Your task to perform on an android device: Go to Android settings Image 0: 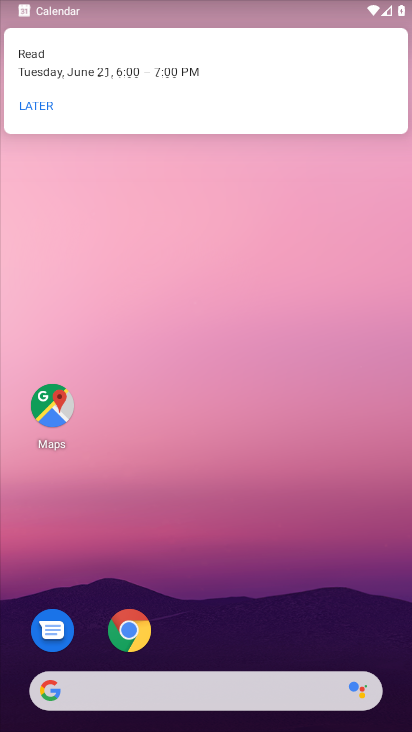
Step 0: press home button
Your task to perform on an android device: Go to Android settings Image 1: 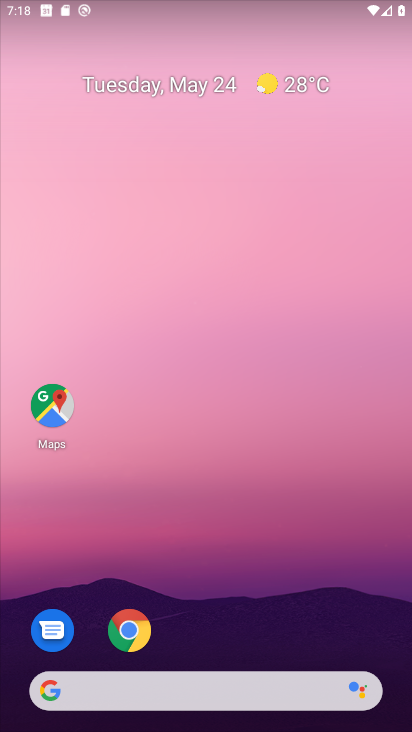
Step 1: drag from (305, 692) to (138, 150)
Your task to perform on an android device: Go to Android settings Image 2: 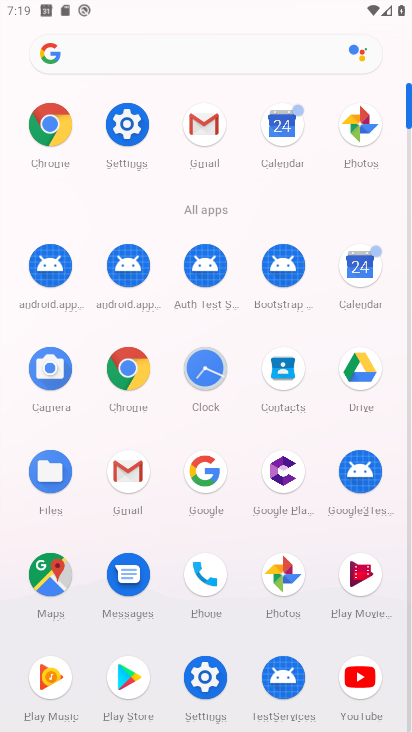
Step 2: click (148, 116)
Your task to perform on an android device: Go to Android settings Image 3: 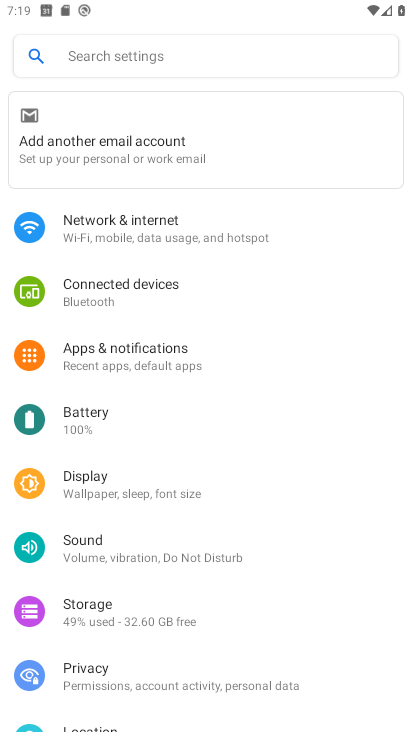
Step 3: click (91, 40)
Your task to perform on an android device: Go to Android settings Image 4: 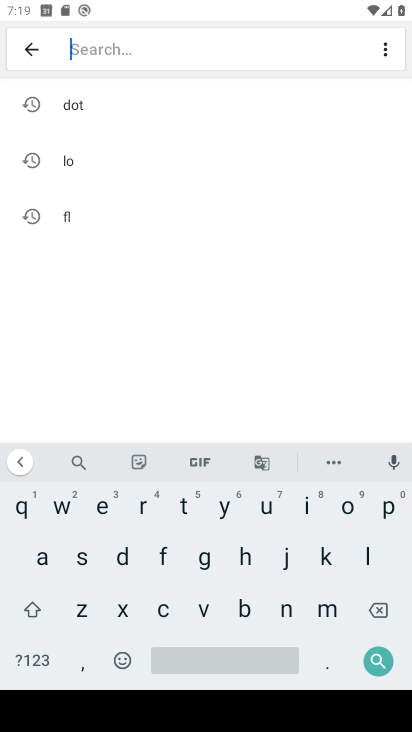
Step 4: click (39, 568)
Your task to perform on an android device: Go to Android settings Image 5: 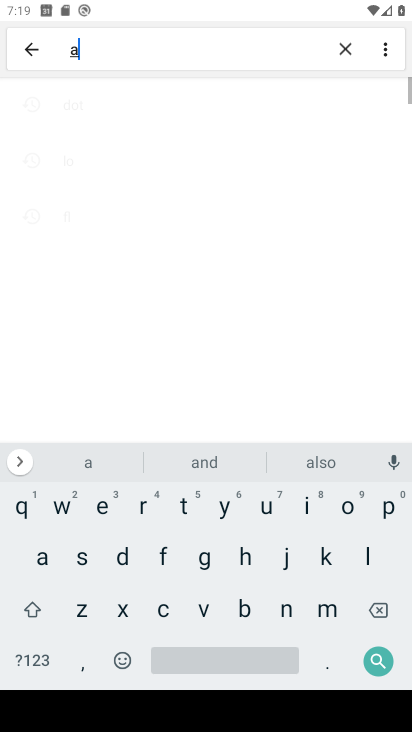
Step 5: click (285, 615)
Your task to perform on an android device: Go to Android settings Image 6: 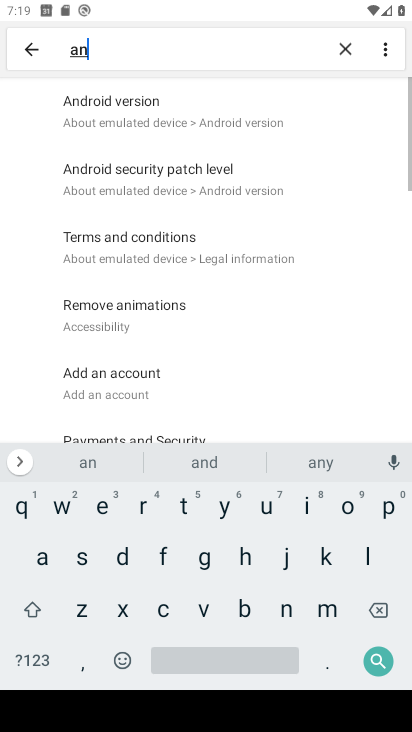
Step 6: click (146, 124)
Your task to perform on an android device: Go to Android settings Image 7: 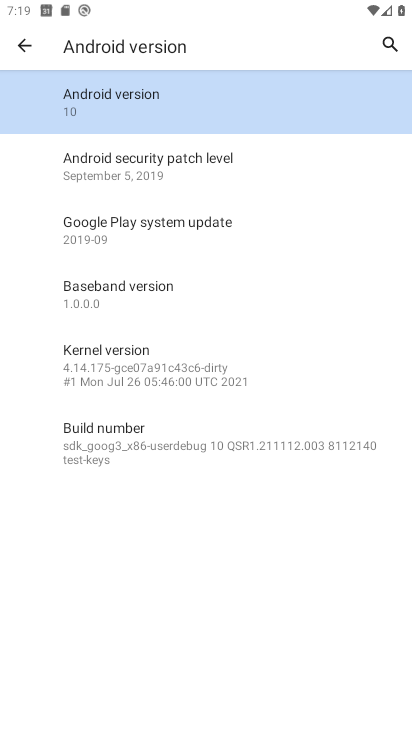
Step 7: task complete